Your task to perform on an android device: Open CNN.com Image 0: 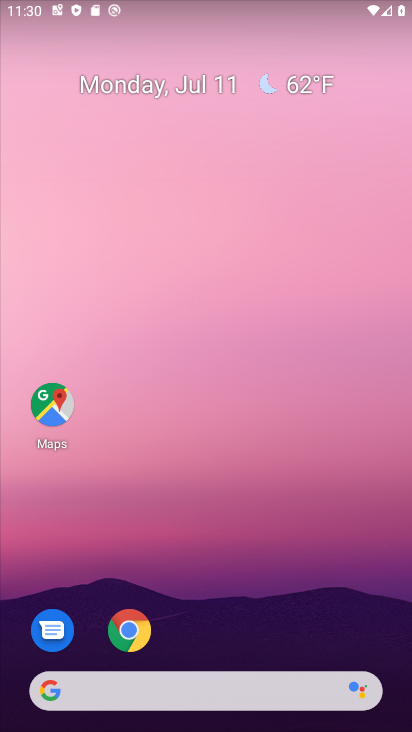
Step 0: click (409, 602)
Your task to perform on an android device: Open CNN.com Image 1: 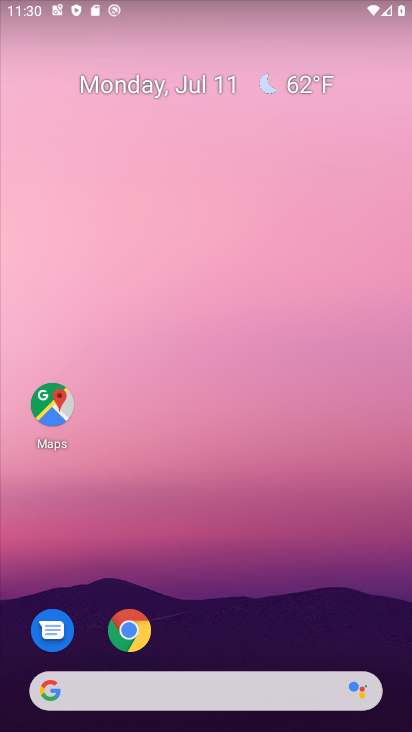
Step 1: drag from (274, 654) to (323, 5)
Your task to perform on an android device: Open CNN.com Image 2: 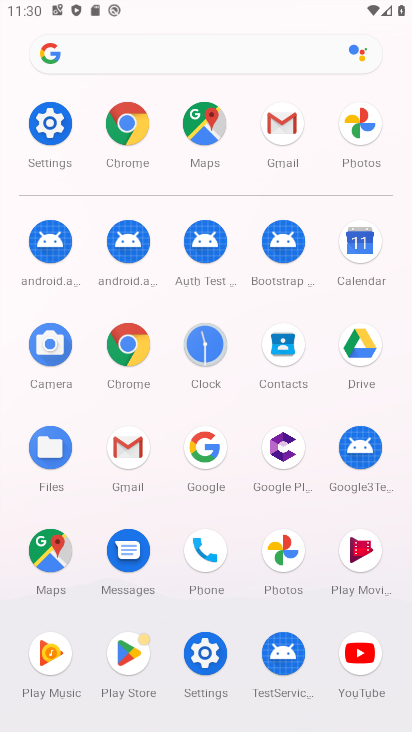
Step 2: click (137, 346)
Your task to perform on an android device: Open CNN.com Image 3: 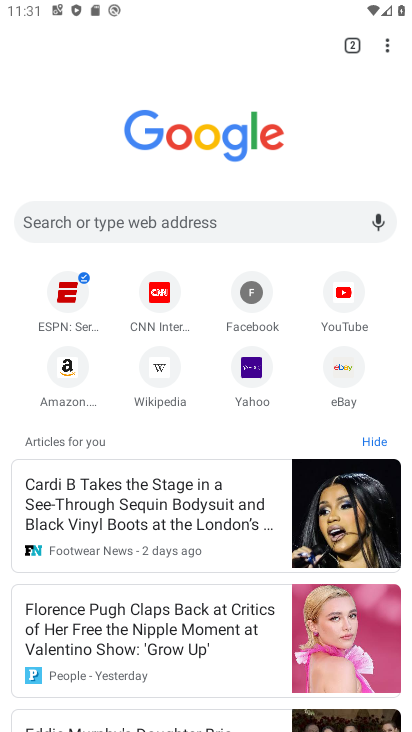
Step 3: click (150, 314)
Your task to perform on an android device: Open CNN.com Image 4: 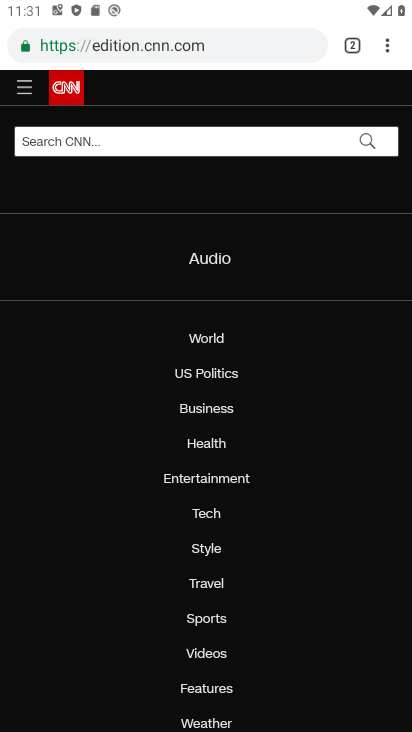
Step 4: task complete